Your task to perform on an android device: Open the map Image 0: 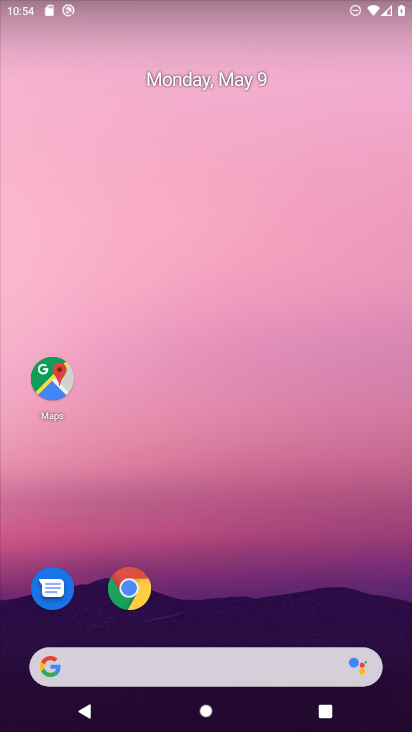
Step 0: click (63, 383)
Your task to perform on an android device: Open the map Image 1: 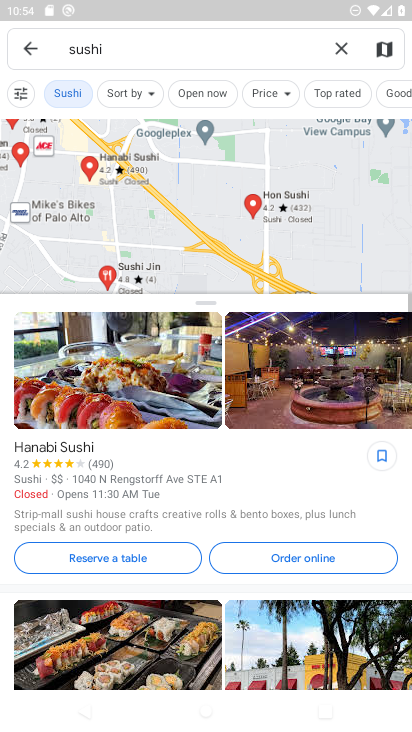
Step 1: task complete